Your task to perform on an android device: manage bookmarks in the chrome app Image 0: 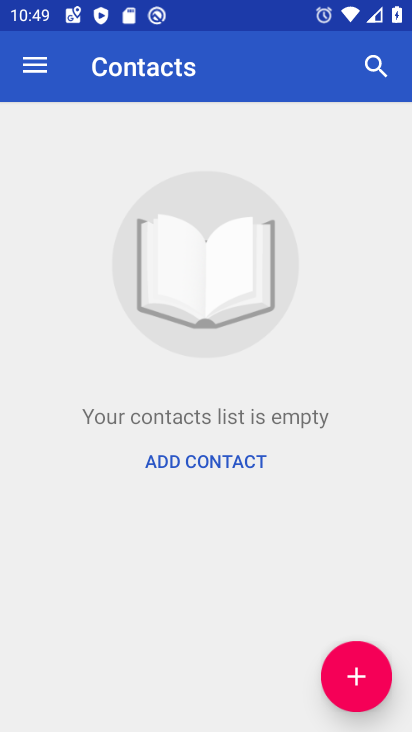
Step 0: press home button
Your task to perform on an android device: manage bookmarks in the chrome app Image 1: 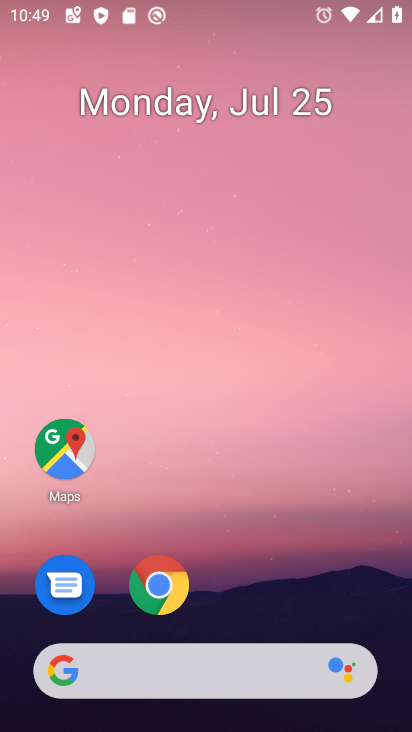
Step 1: drag from (219, 640) to (209, 81)
Your task to perform on an android device: manage bookmarks in the chrome app Image 2: 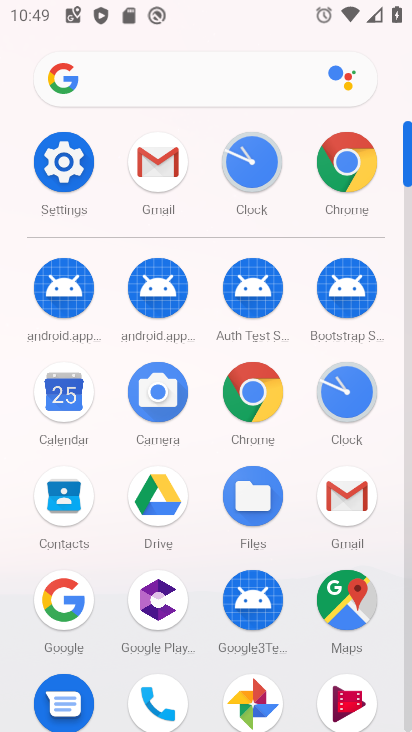
Step 2: click (253, 381)
Your task to perform on an android device: manage bookmarks in the chrome app Image 3: 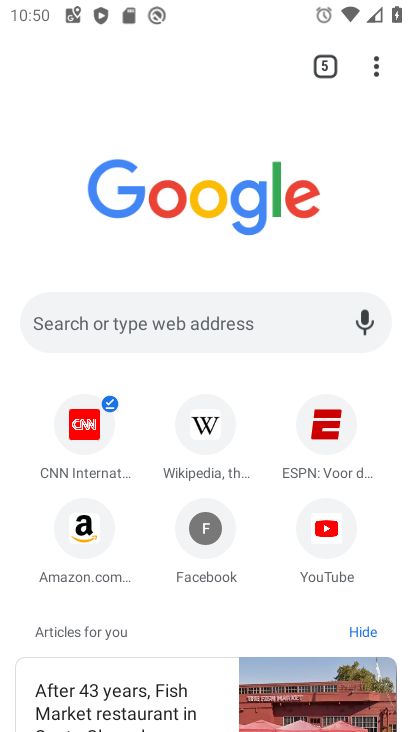
Step 3: click (377, 63)
Your task to perform on an android device: manage bookmarks in the chrome app Image 4: 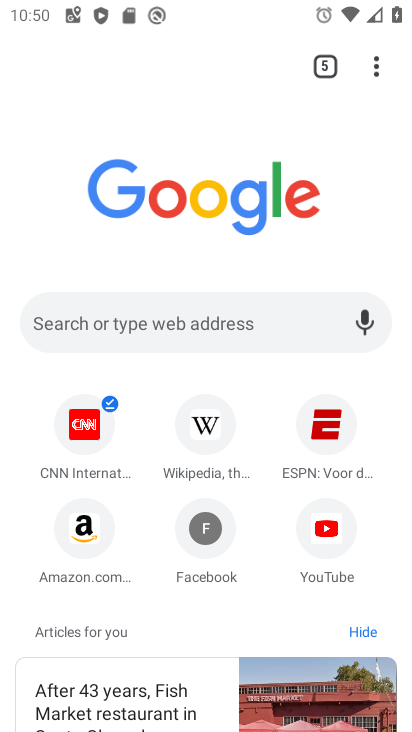
Step 4: drag from (377, 74) to (165, 628)
Your task to perform on an android device: manage bookmarks in the chrome app Image 5: 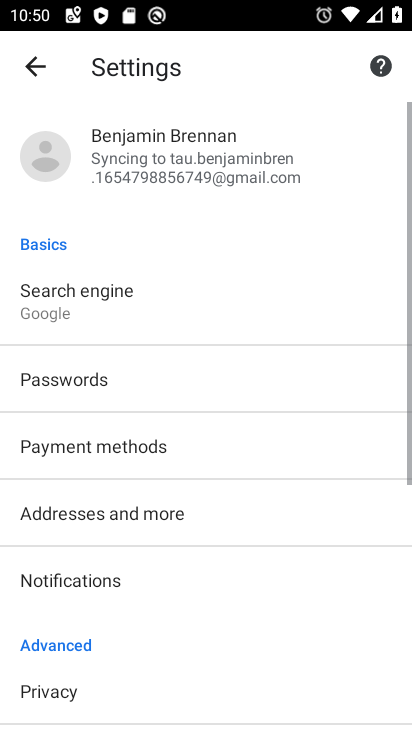
Step 5: drag from (176, 599) to (114, 165)
Your task to perform on an android device: manage bookmarks in the chrome app Image 6: 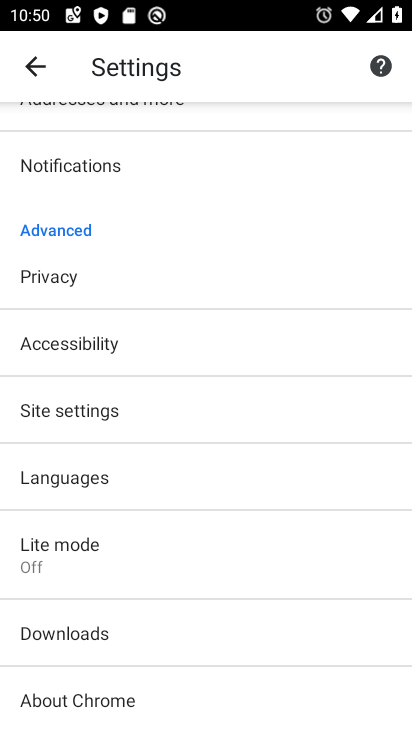
Step 6: drag from (75, 203) to (89, 601)
Your task to perform on an android device: manage bookmarks in the chrome app Image 7: 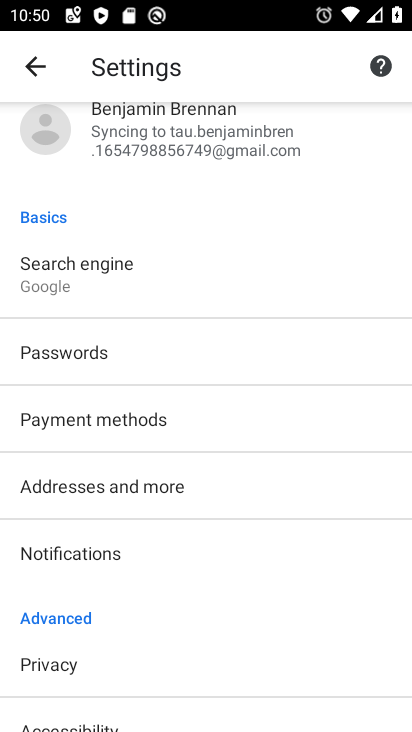
Step 7: drag from (108, 536) to (72, 173)
Your task to perform on an android device: manage bookmarks in the chrome app Image 8: 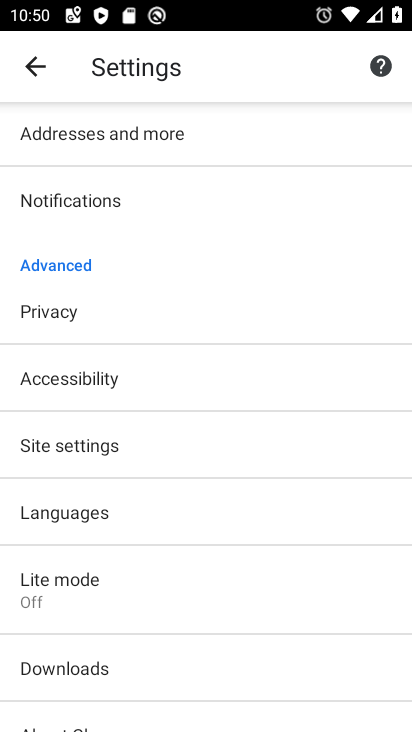
Step 8: drag from (150, 522) to (133, 122)
Your task to perform on an android device: manage bookmarks in the chrome app Image 9: 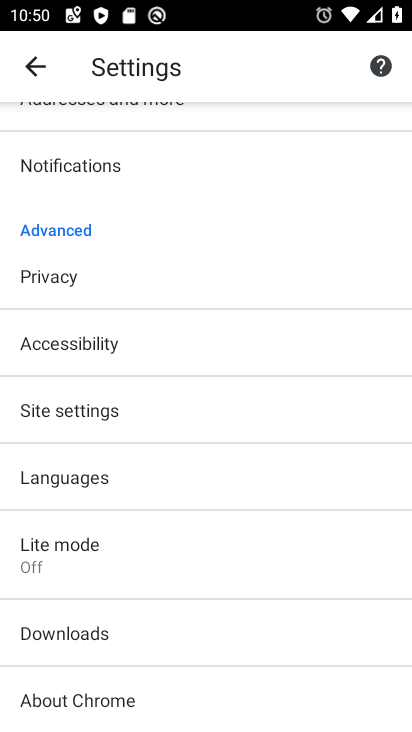
Step 9: click (23, 72)
Your task to perform on an android device: manage bookmarks in the chrome app Image 10: 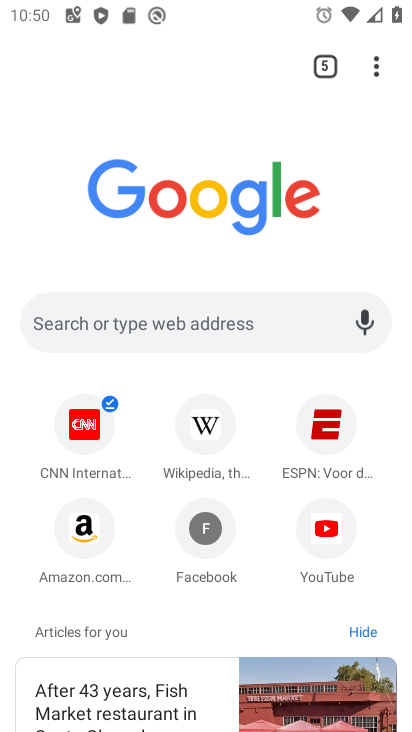
Step 10: task complete